Your task to perform on an android device: turn pop-ups off in chrome Image 0: 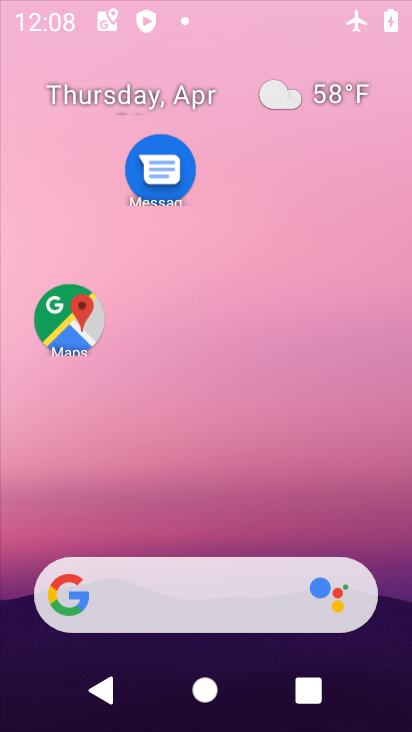
Step 0: click (318, 0)
Your task to perform on an android device: turn pop-ups off in chrome Image 1: 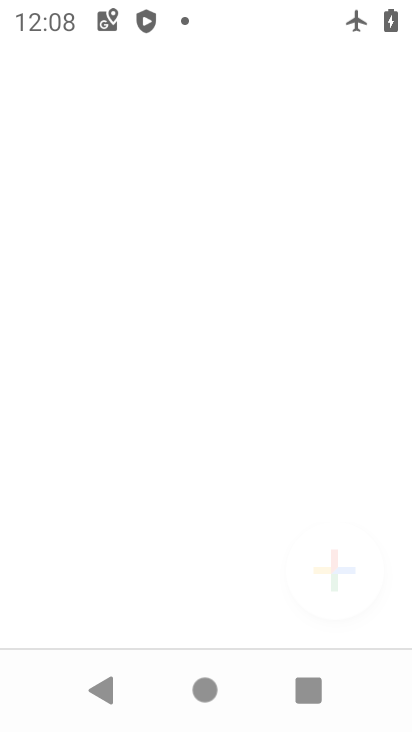
Step 1: drag from (233, 428) to (271, 1)
Your task to perform on an android device: turn pop-ups off in chrome Image 2: 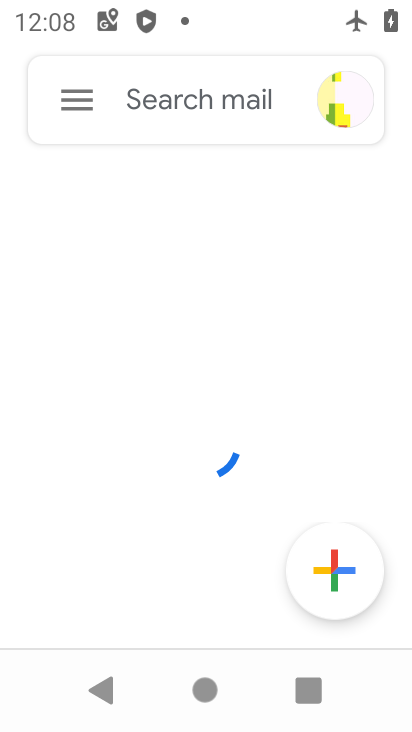
Step 2: drag from (177, 493) to (247, 102)
Your task to perform on an android device: turn pop-ups off in chrome Image 3: 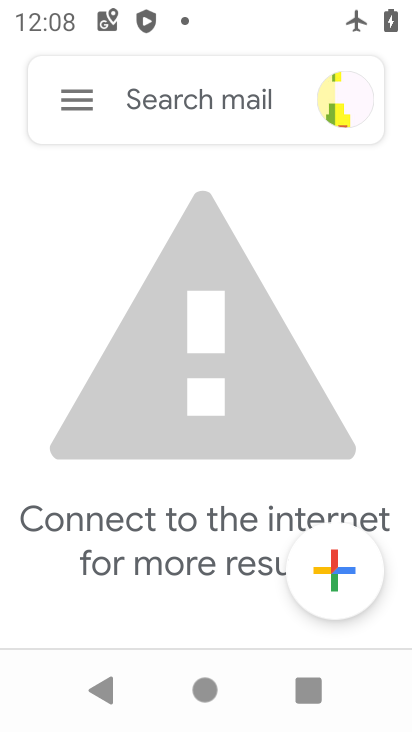
Step 3: drag from (218, 536) to (223, 117)
Your task to perform on an android device: turn pop-ups off in chrome Image 4: 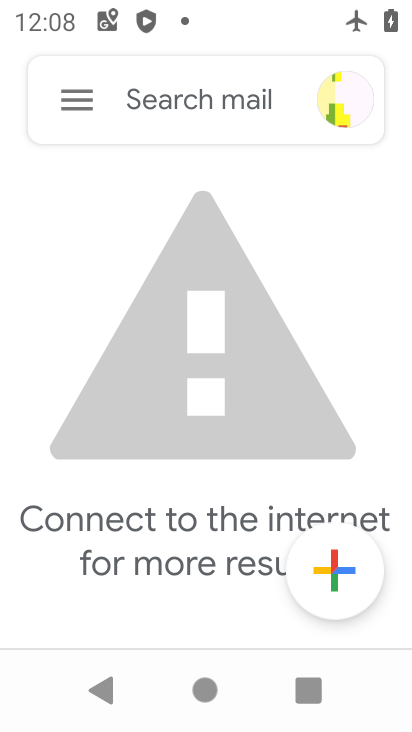
Step 4: click (89, 108)
Your task to perform on an android device: turn pop-ups off in chrome Image 5: 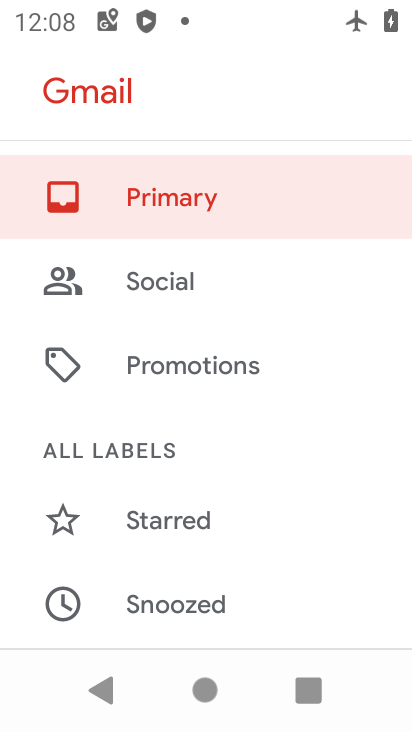
Step 5: press home button
Your task to perform on an android device: turn pop-ups off in chrome Image 6: 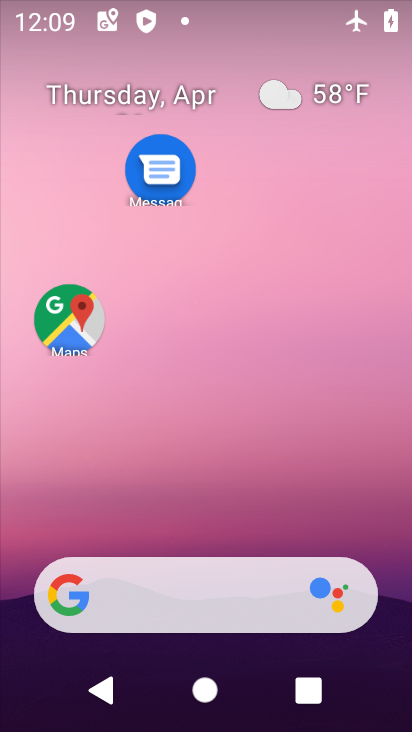
Step 6: drag from (175, 504) to (268, 47)
Your task to perform on an android device: turn pop-ups off in chrome Image 7: 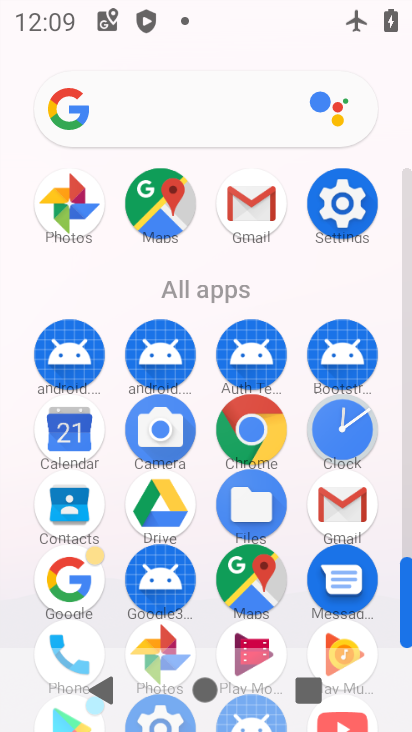
Step 7: click (242, 419)
Your task to perform on an android device: turn pop-ups off in chrome Image 8: 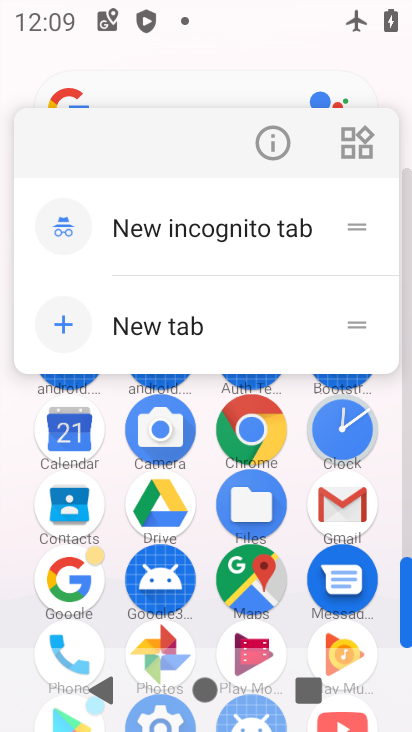
Step 8: click (264, 144)
Your task to perform on an android device: turn pop-ups off in chrome Image 9: 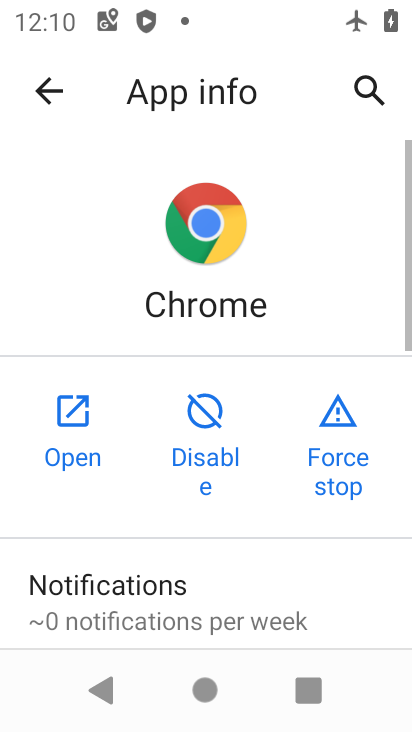
Step 9: click (91, 402)
Your task to perform on an android device: turn pop-ups off in chrome Image 10: 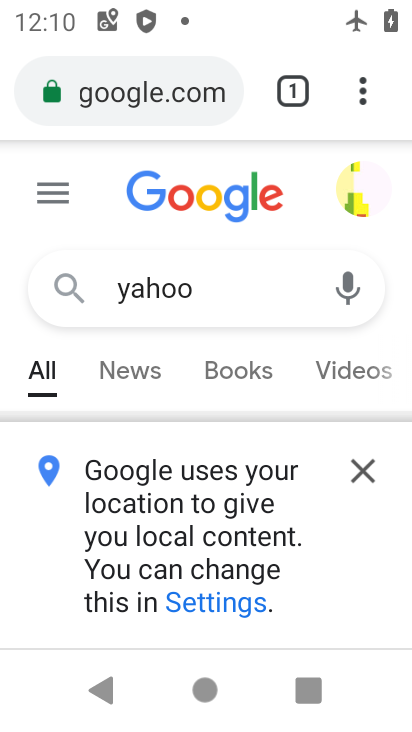
Step 10: drag from (367, 95) to (113, 482)
Your task to perform on an android device: turn pop-ups off in chrome Image 11: 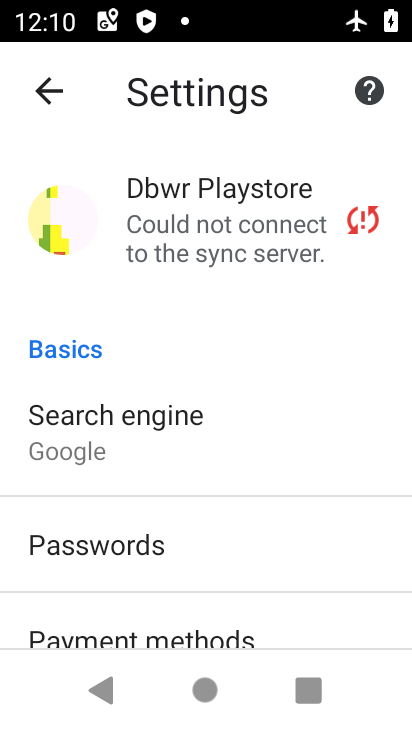
Step 11: drag from (185, 521) to (221, 163)
Your task to perform on an android device: turn pop-ups off in chrome Image 12: 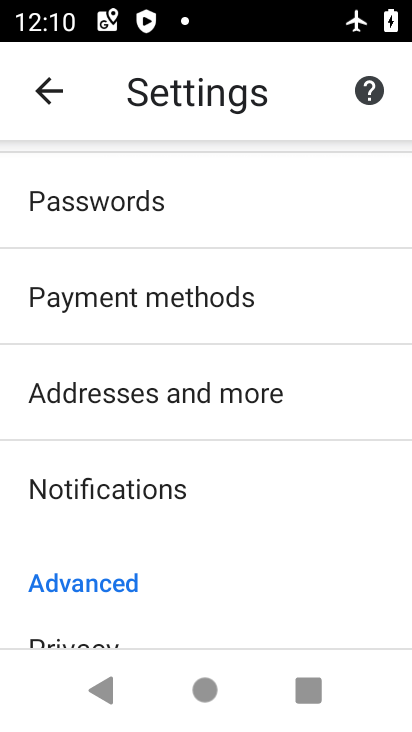
Step 12: drag from (208, 476) to (243, 41)
Your task to perform on an android device: turn pop-ups off in chrome Image 13: 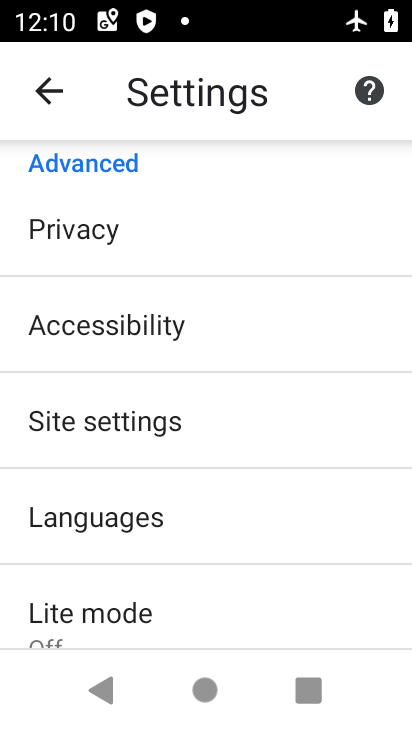
Step 13: click (126, 436)
Your task to perform on an android device: turn pop-ups off in chrome Image 14: 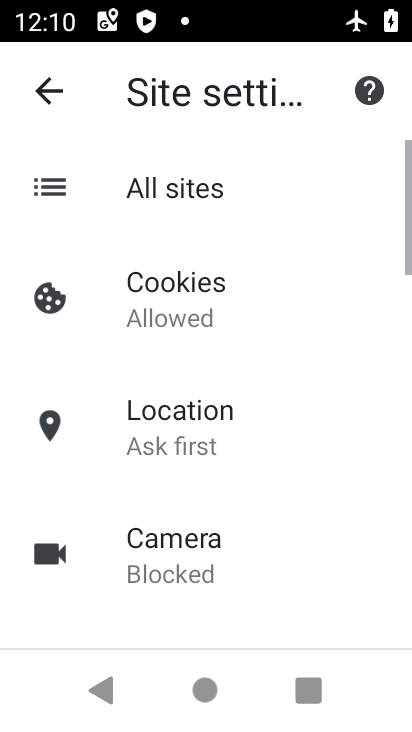
Step 14: drag from (214, 465) to (248, 161)
Your task to perform on an android device: turn pop-ups off in chrome Image 15: 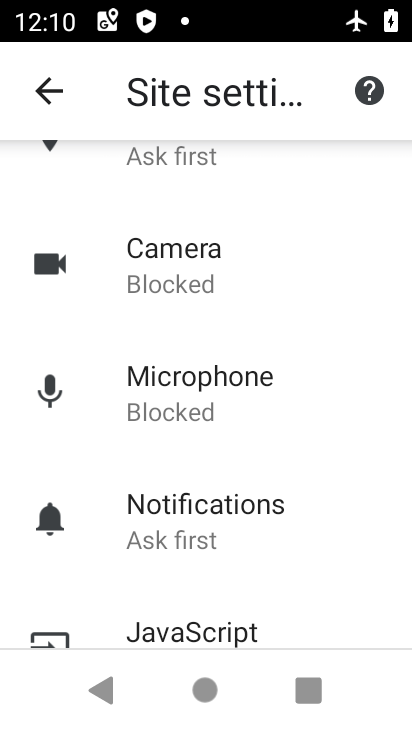
Step 15: drag from (217, 532) to (265, 171)
Your task to perform on an android device: turn pop-ups off in chrome Image 16: 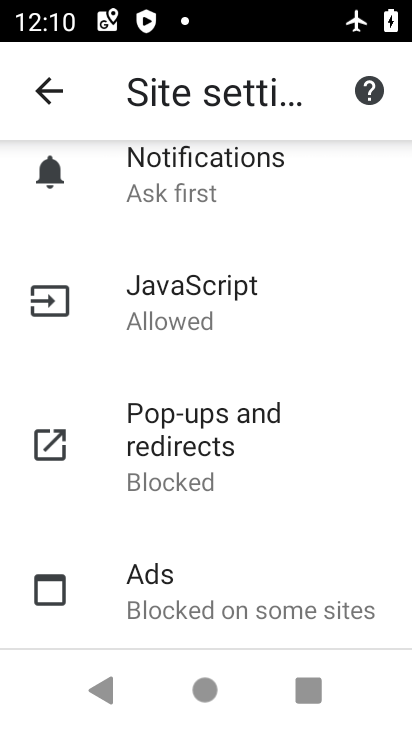
Step 16: click (189, 437)
Your task to perform on an android device: turn pop-ups off in chrome Image 17: 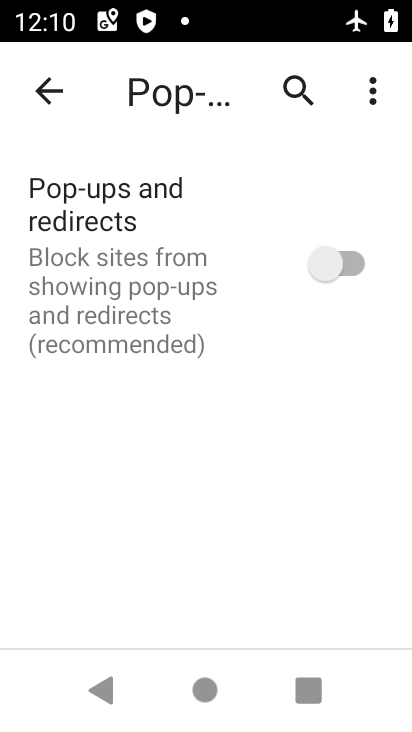
Step 17: task complete